Your task to perform on an android device: change the clock style Image 0: 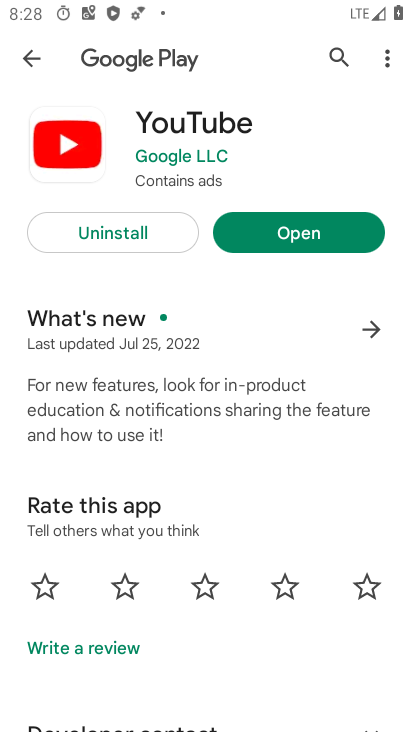
Step 0: press home button
Your task to perform on an android device: change the clock style Image 1: 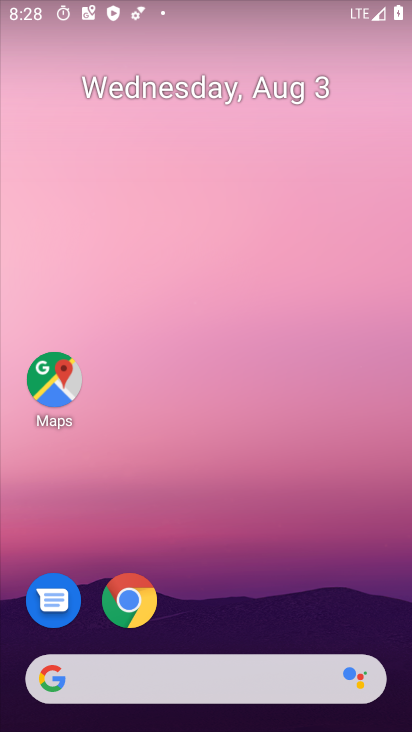
Step 1: drag from (227, 616) to (162, 59)
Your task to perform on an android device: change the clock style Image 2: 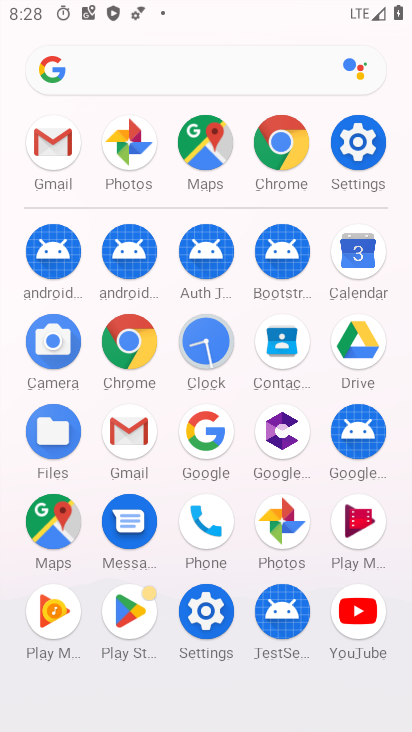
Step 2: click (200, 344)
Your task to perform on an android device: change the clock style Image 3: 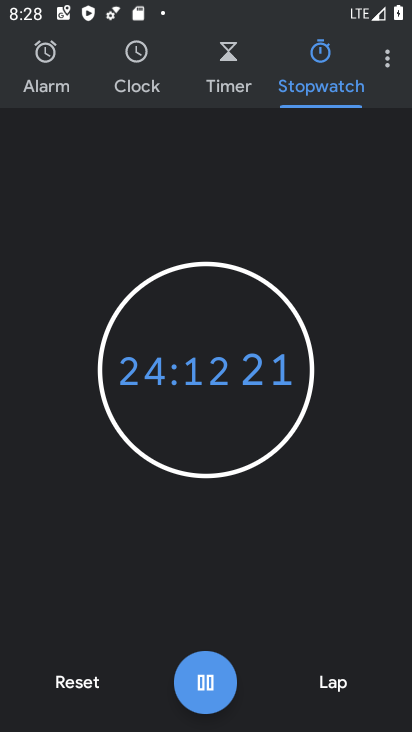
Step 3: click (85, 686)
Your task to perform on an android device: change the clock style Image 4: 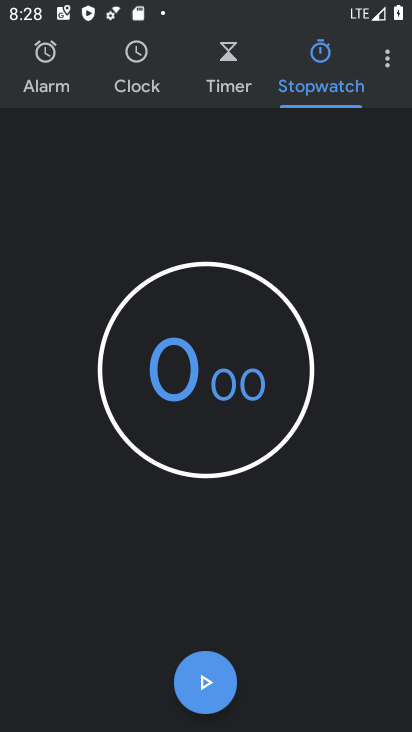
Step 4: click (386, 67)
Your task to perform on an android device: change the clock style Image 5: 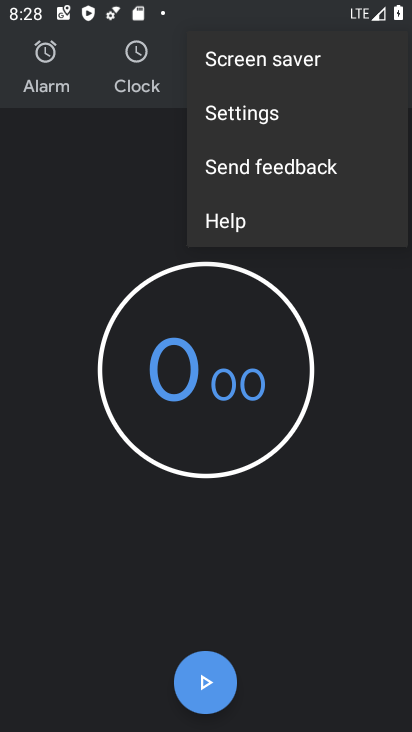
Step 5: click (264, 125)
Your task to perform on an android device: change the clock style Image 6: 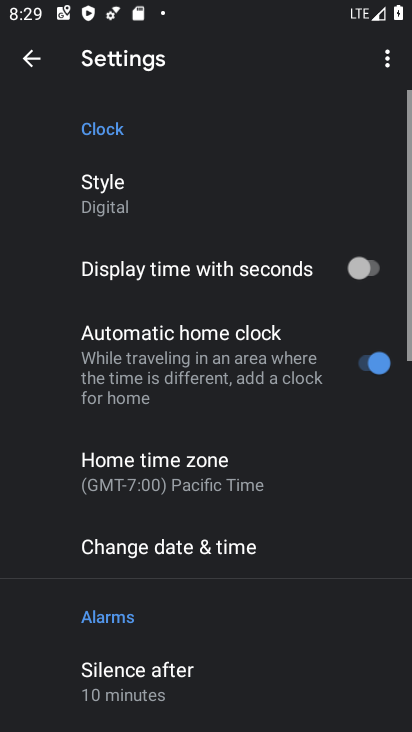
Step 6: click (117, 189)
Your task to perform on an android device: change the clock style Image 7: 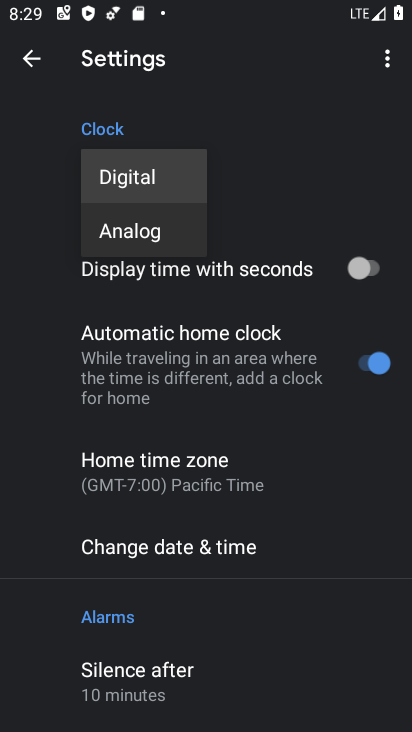
Step 7: click (142, 225)
Your task to perform on an android device: change the clock style Image 8: 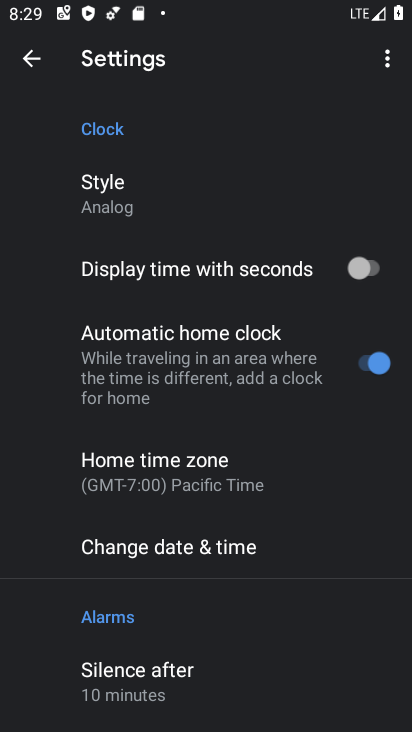
Step 8: task complete